Your task to perform on an android device: Open calendar and show me the second week of next month Image 0: 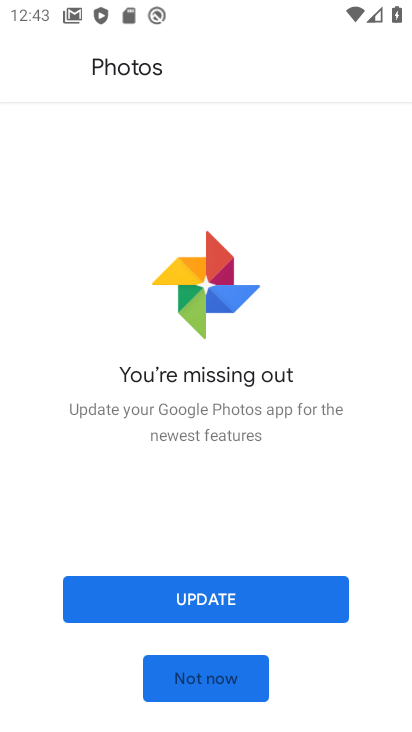
Step 0: press home button
Your task to perform on an android device: Open calendar and show me the second week of next month Image 1: 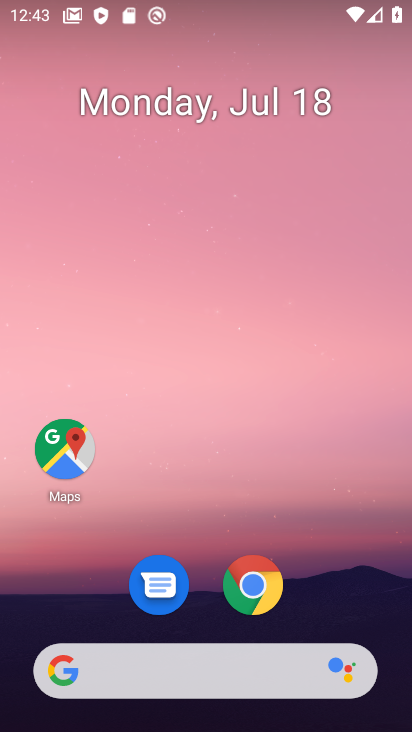
Step 1: drag from (224, 668) to (350, 59)
Your task to perform on an android device: Open calendar and show me the second week of next month Image 2: 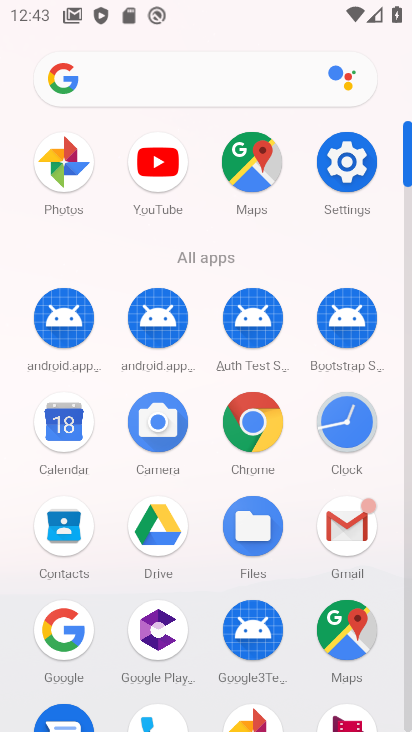
Step 2: click (55, 422)
Your task to perform on an android device: Open calendar and show me the second week of next month Image 3: 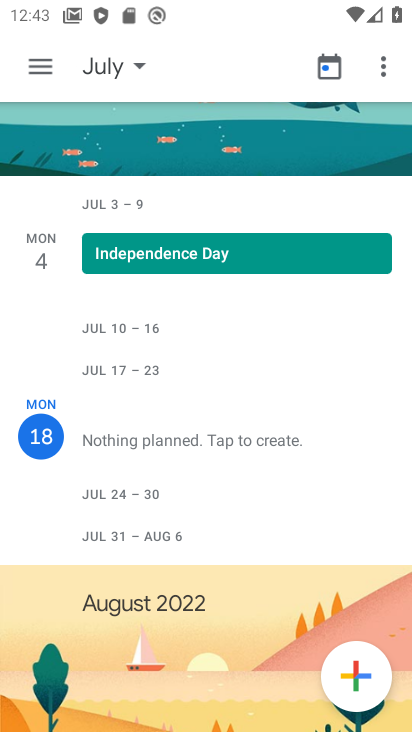
Step 3: click (111, 73)
Your task to perform on an android device: Open calendar and show me the second week of next month Image 4: 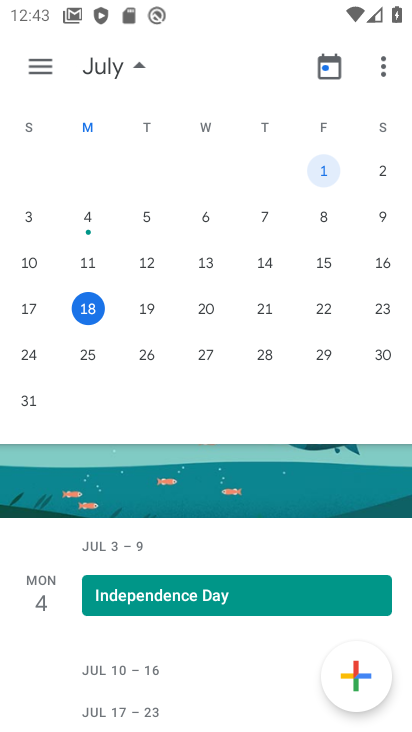
Step 4: drag from (342, 286) to (0, 291)
Your task to perform on an android device: Open calendar and show me the second week of next month Image 5: 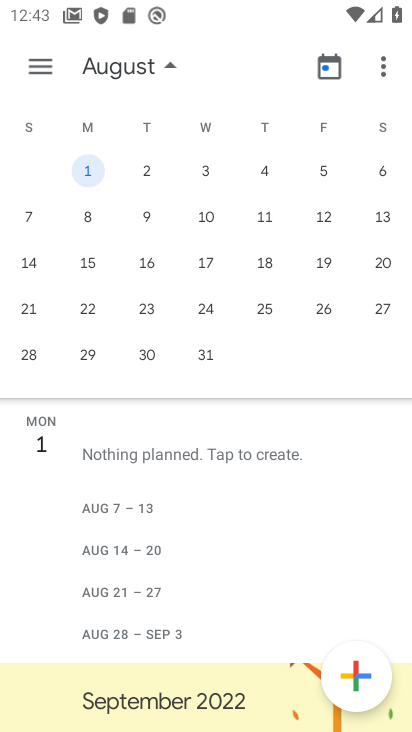
Step 5: click (24, 217)
Your task to perform on an android device: Open calendar and show me the second week of next month Image 6: 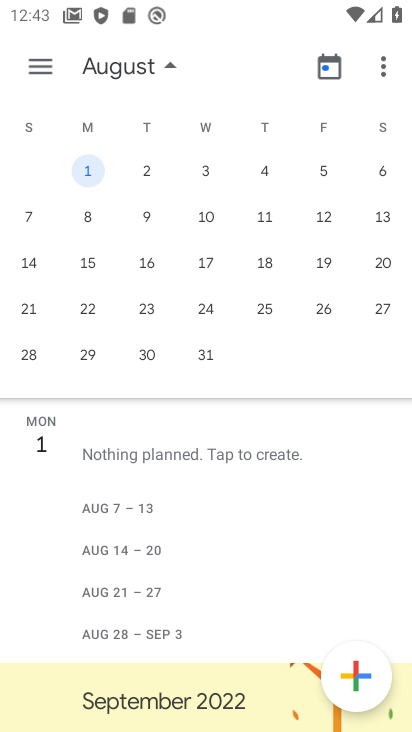
Step 6: click (31, 218)
Your task to perform on an android device: Open calendar and show me the second week of next month Image 7: 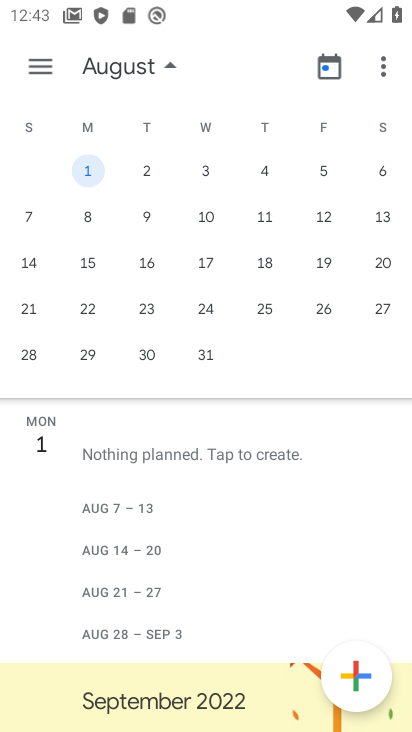
Step 7: click (21, 217)
Your task to perform on an android device: Open calendar and show me the second week of next month Image 8: 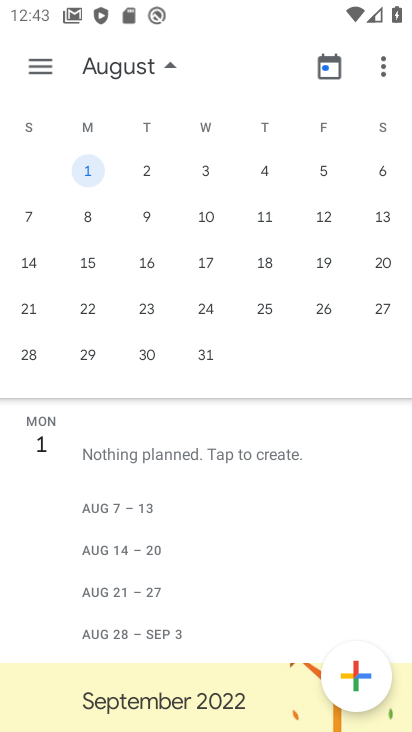
Step 8: click (28, 220)
Your task to perform on an android device: Open calendar and show me the second week of next month Image 9: 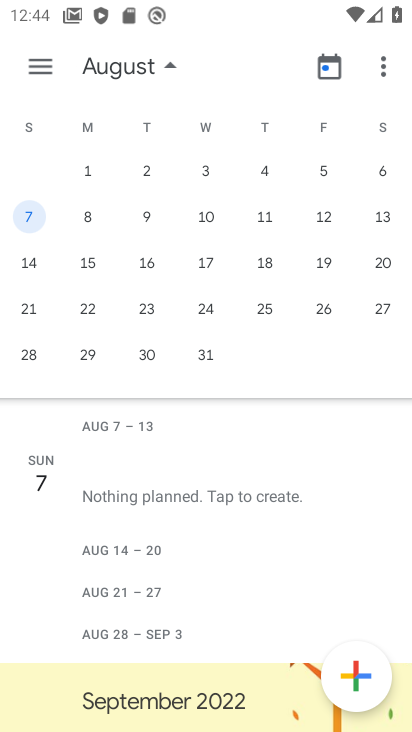
Step 9: click (42, 70)
Your task to perform on an android device: Open calendar and show me the second week of next month Image 10: 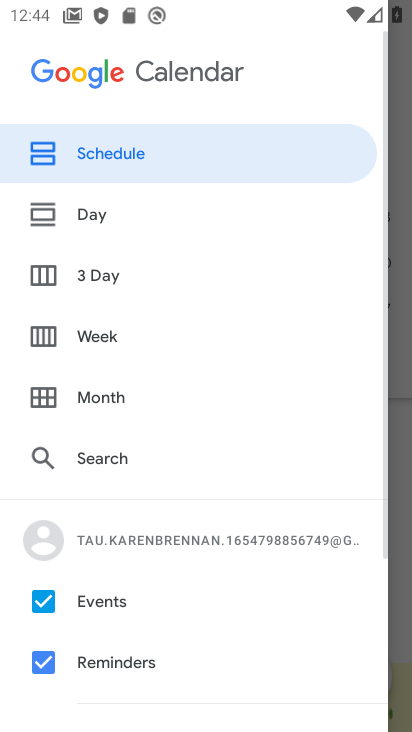
Step 10: click (98, 340)
Your task to perform on an android device: Open calendar and show me the second week of next month Image 11: 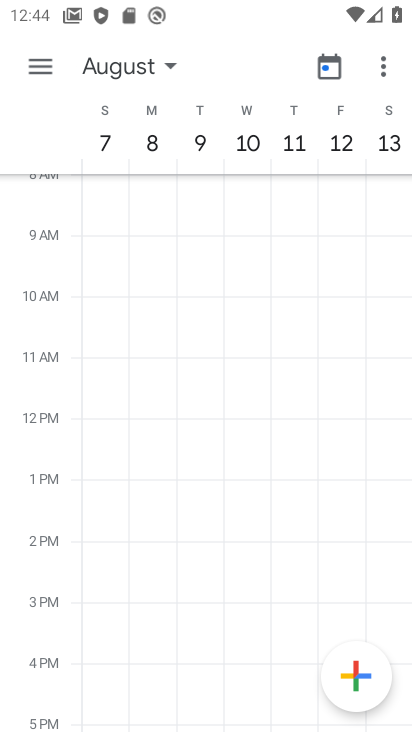
Step 11: task complete